Your task to perform on an android device: Open Chrome and go to settings Image 0: 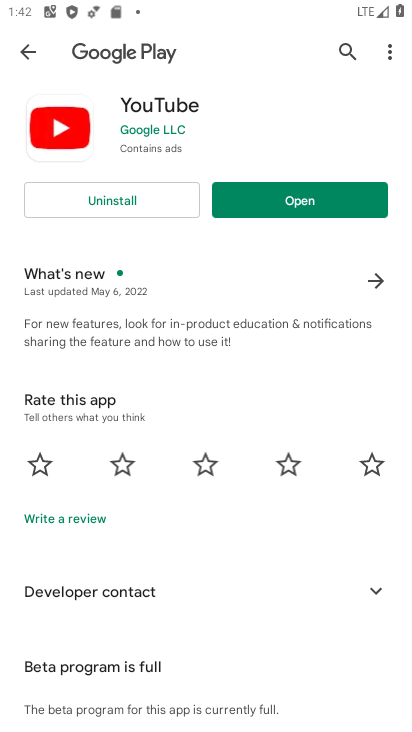
Step 0: press home button
Your task to perform on an android device: Open Chrome and go to settings Image 1: 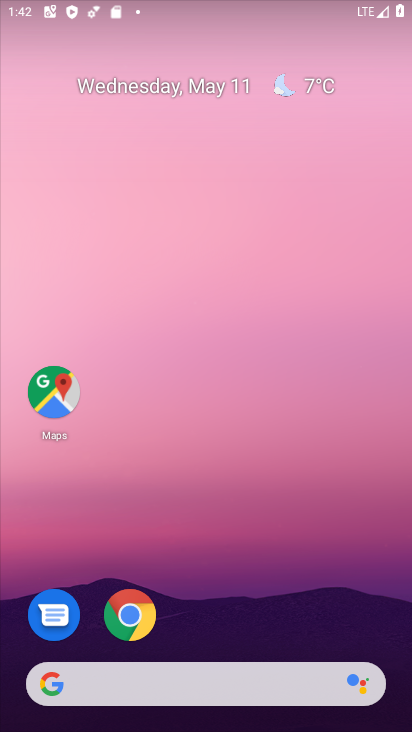
Step 1: drag from (304, 611) to (334, 133)
Your task to perform on an android device: Open Chrome and go to settings Image 2: 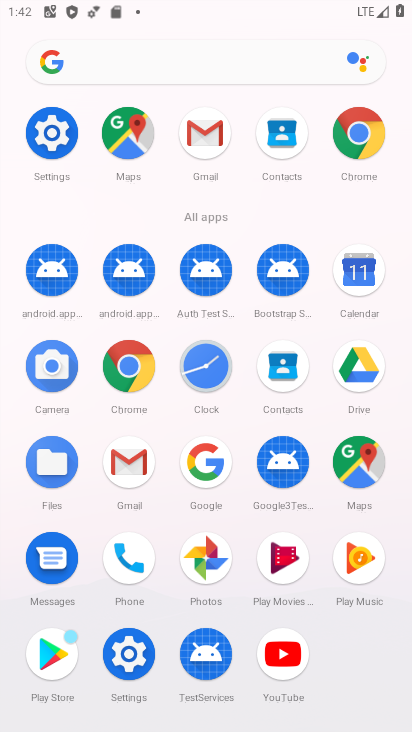
Step 2: click (134, 362)
Your task to perform on an android device: Open Chrome and go to settings Image 3: 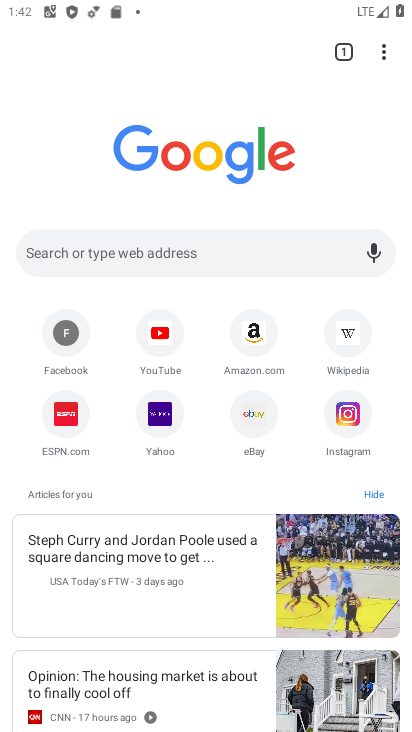
Step 3: task complete